Your task to perform on an android device: Go to Yahoo.com Image 0: 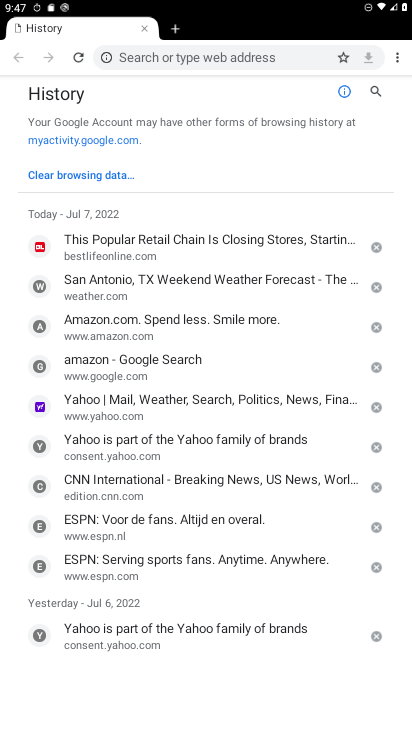
Step 0: press home button
Your task to perform on an android device: Go to Yahoo.com Image 1: 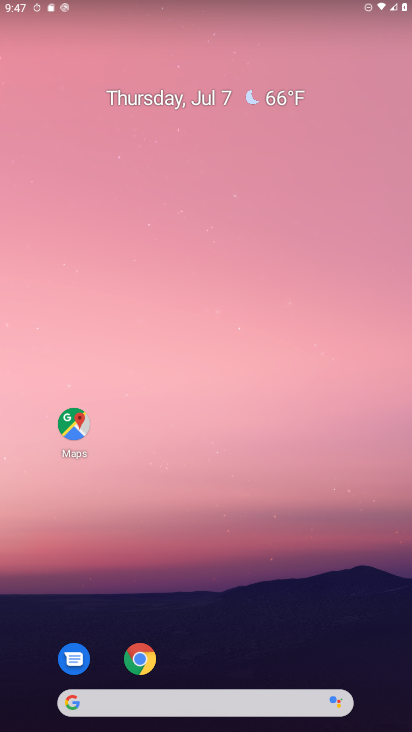
Step 1: drag from (396, 675) to (292, 78)
Your task to perform on an android device: Go to Yahoo.com Image 2: 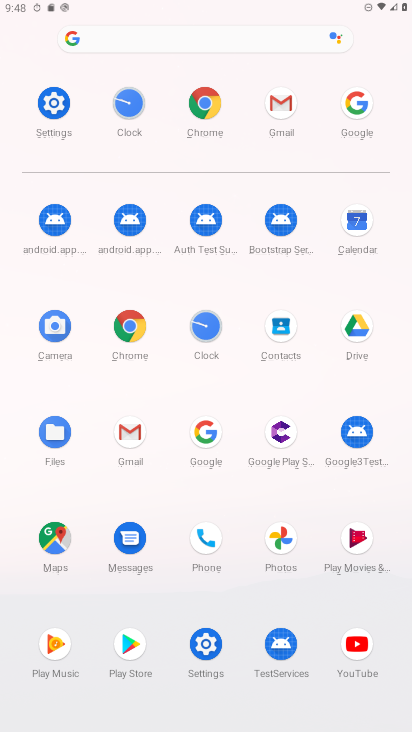
Step 2: click (197, 435)
Your task to perform on an android device: Go to Yahoo.com Image 3: 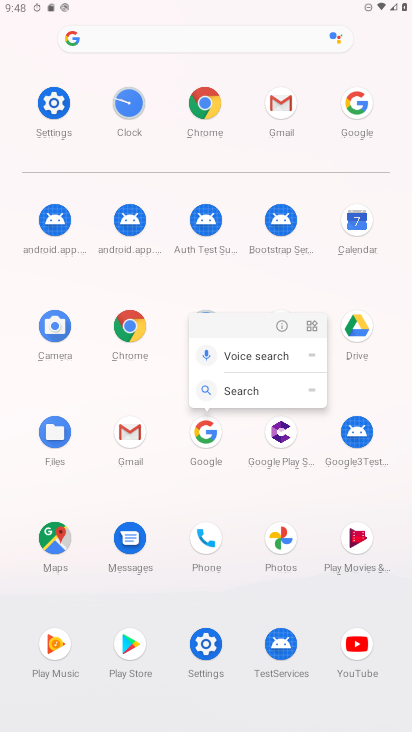
Step 3: click (209, 442)
Your task to perform on an android device: Go to Yahoo.com Image 4: 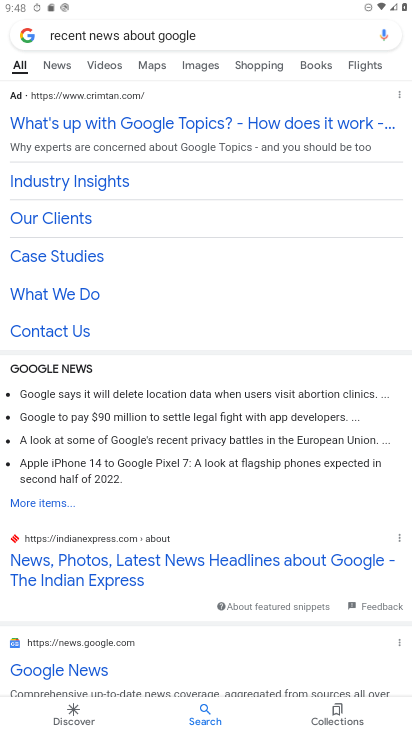
Step 4: press back button
Your task to perform on an android device: Go to Yahoo.com Image 5: 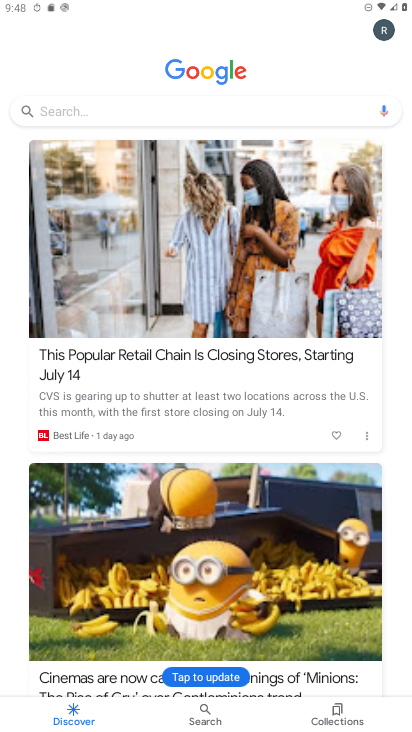
Step 5: click (108, 100)
Your task to perform on an android device: Go to Yahoo.com Image 6: 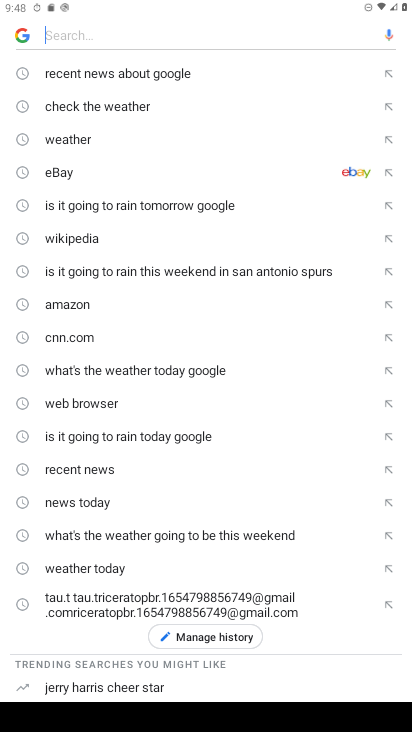
Step 6: type "yahoo.com"
Your task to perform on an android device: Go to Yahoo.com Image 7: 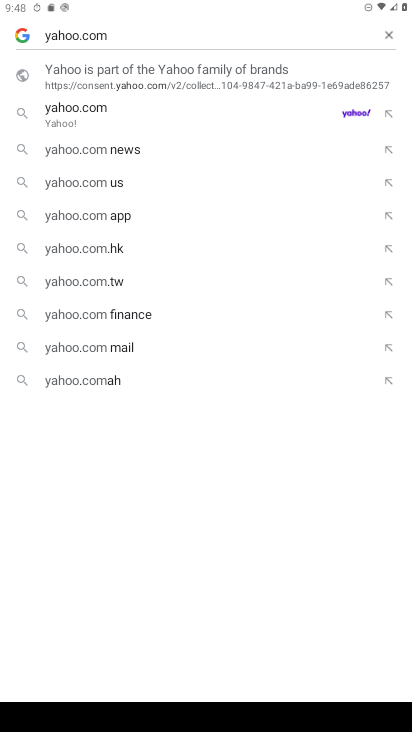
Step 7: click (94, 116)
Your task to perform on an android device: Go to Yahoo.com Image 8: 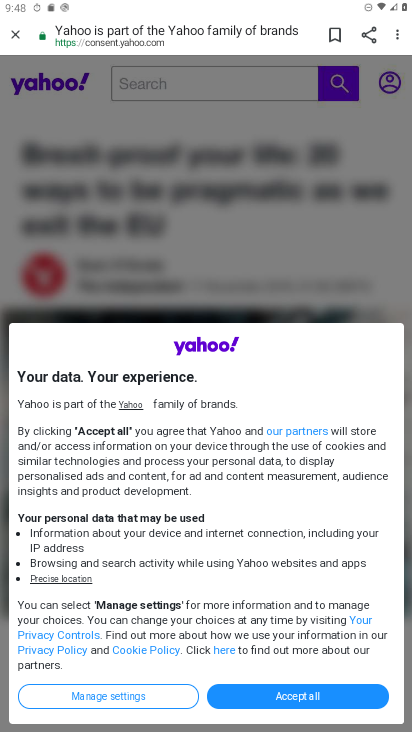
Step 8: task complete